Your task to perform on an android device: search for starred emails in the gmail app Image 0: 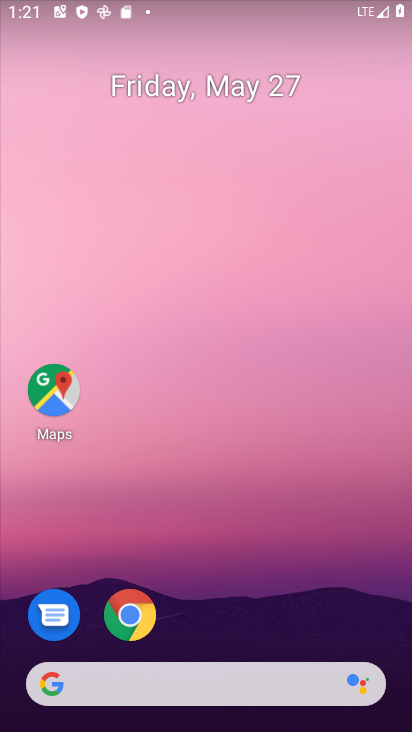
Step 0: drag from (312, 685) to (395, 49)
Your task to perform on an android device: search for starred emails in the gmail app Image 1: 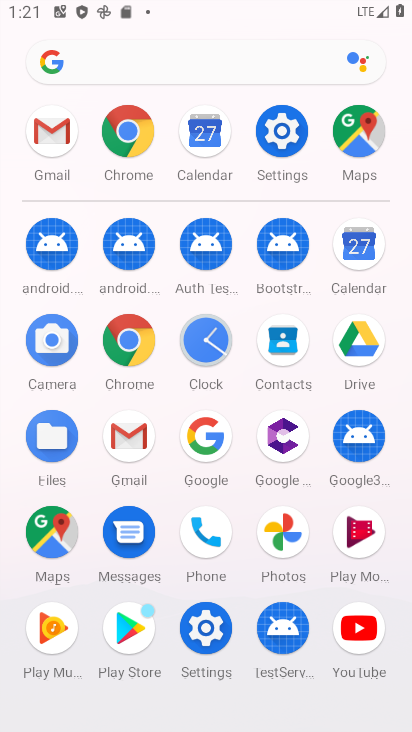
Step 1: click (128, 435)
Your task to perform on an android device: search for starred emails in the gmail app Image 2: 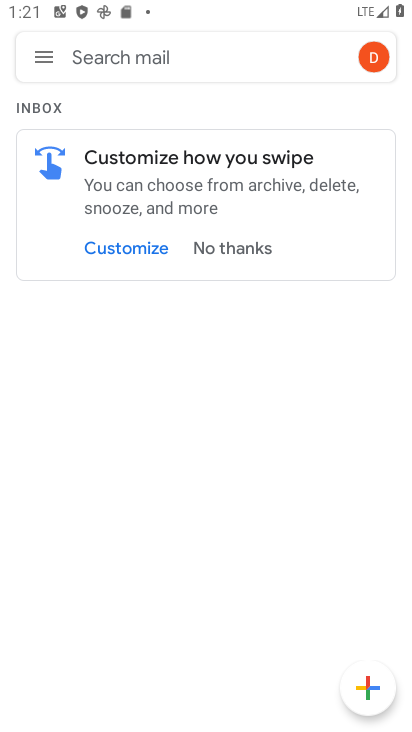
Step 2: press home button
Your task to perform on an android device: search for starred emails in the gmail app Image 3: 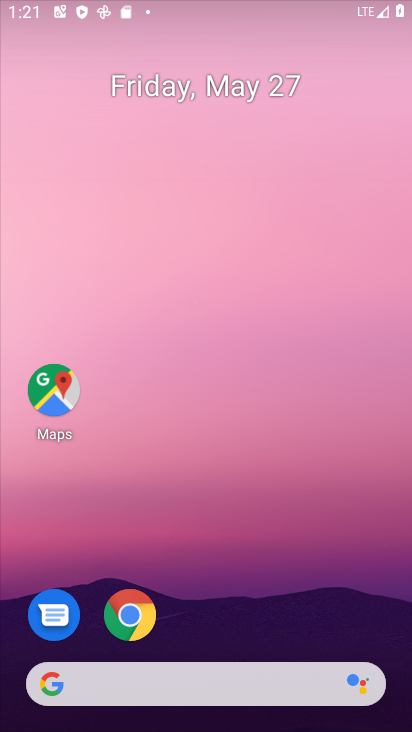
Step 3: drag from (208, 665) to (299, 72)
Your task to perform on an android device: search for starred emails in the gmail app Image 4: 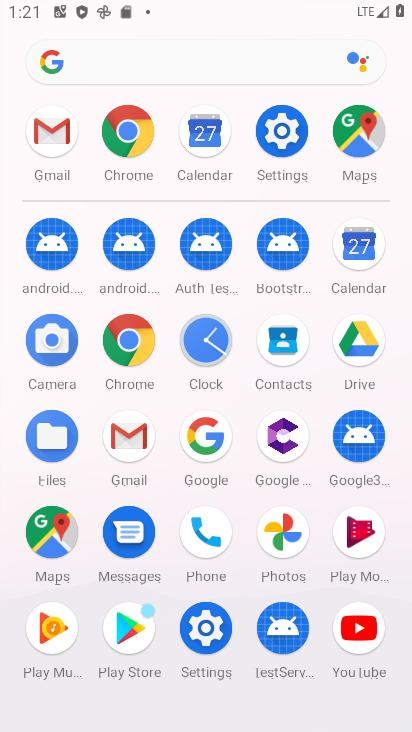
Step 4: click (137, 437)
Your task to perform on an android device: search for starred emails in the gmail app Image 5: 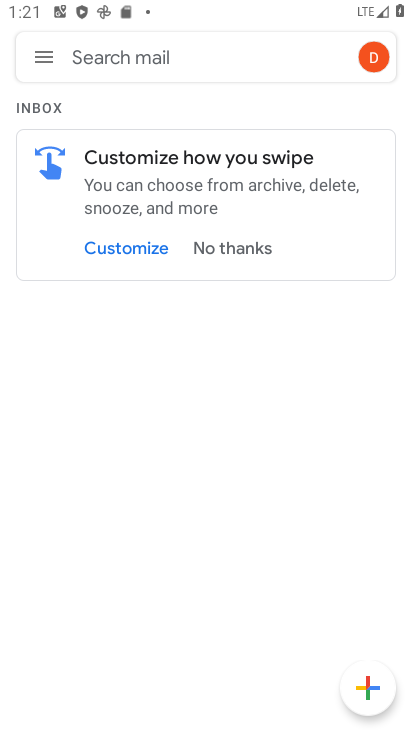
Step 5: click (41, 52)
Your task to perform on an android device: search for starred emails in the gmail app Image 6: 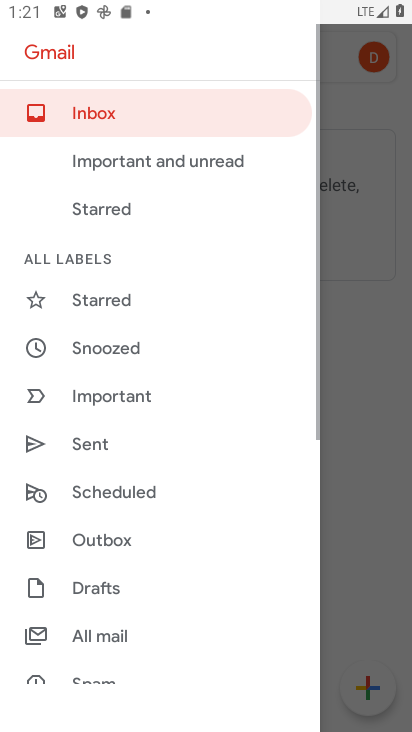
Step 6: click (115, 293)
Your task to perform on an android device: search for starred emails in the gmail app Image 7: 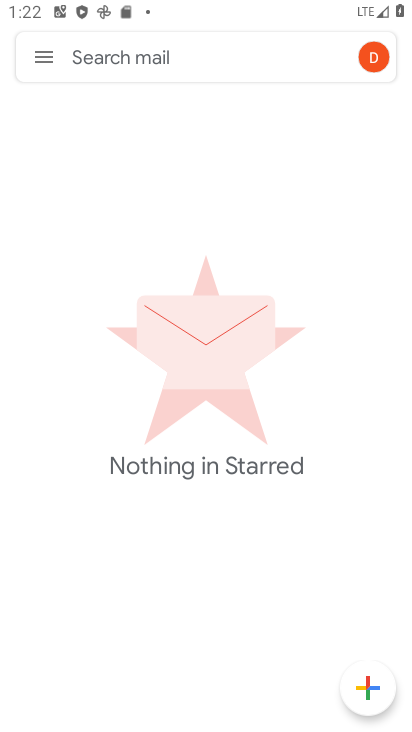
Step 7: task complete